Your task to perform on an android device: set the stopwatch Image 0: 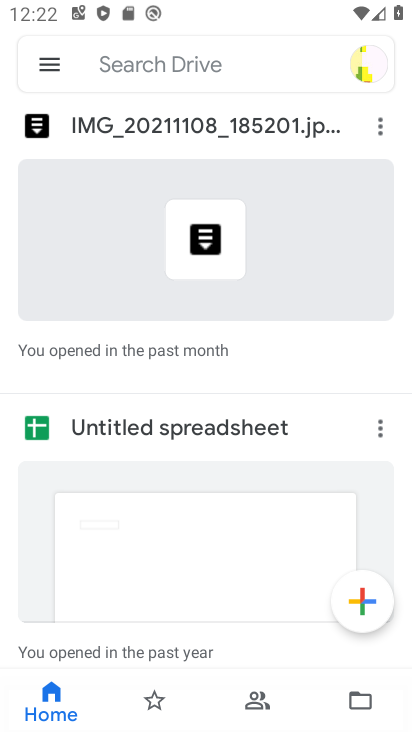
Step 0: task impossible